Your task to perform on an android device: Open accessibility settings Image 0: 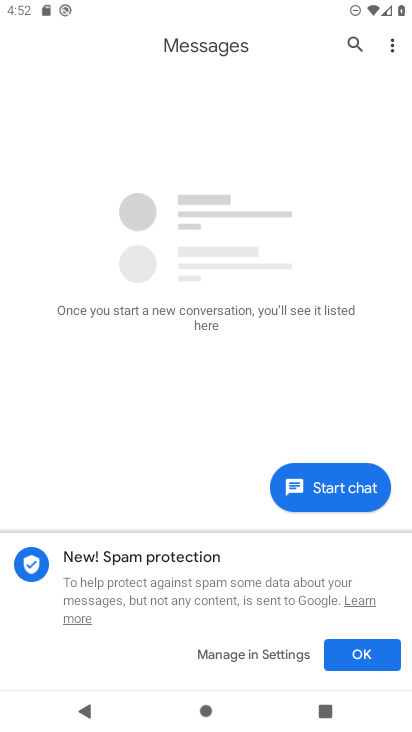
Step 0: press home button
Your task to perform on an android device: Open accessibility settings Image 1: 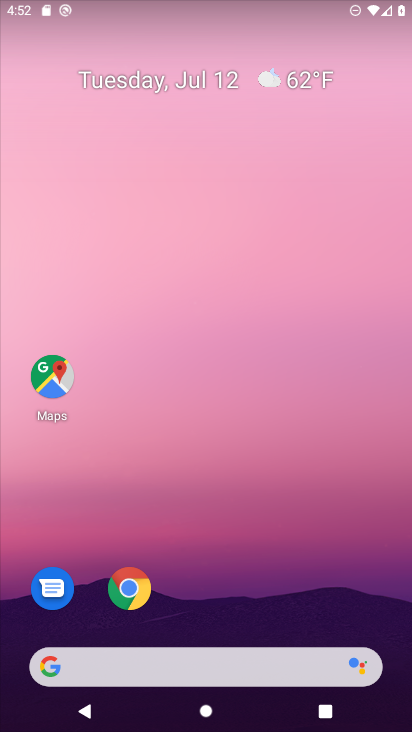
Step 1: drag from (224, 635) to (221, 87)
Your task to perform on an android device: Open accessibility settings Image 2: 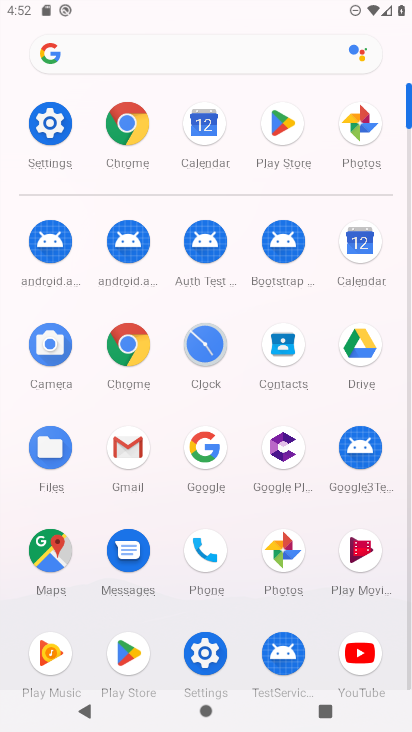
Step 2: click (218, 660)
Your task to perform on an android device: Open accessibility settings Image 3: 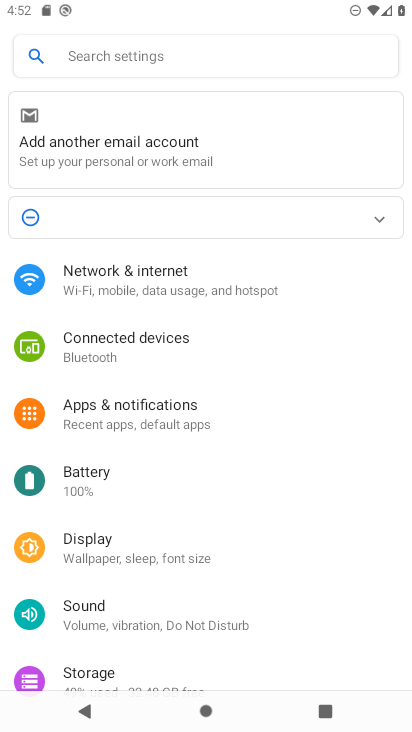
Step 3: drag from (155, 604) to (157, 261)
Your task to perform on an android device: Open accessibility settings Image 4: 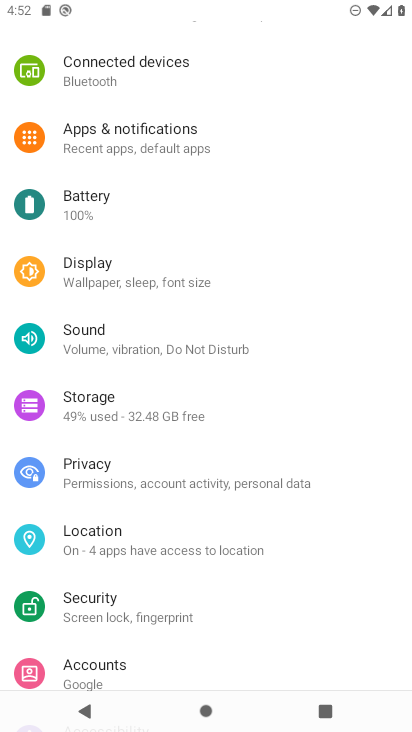
Step 4: drag from (120, 650) to (159, 381)
Your task to perform on an android device: Open accessibility settings Image 5: 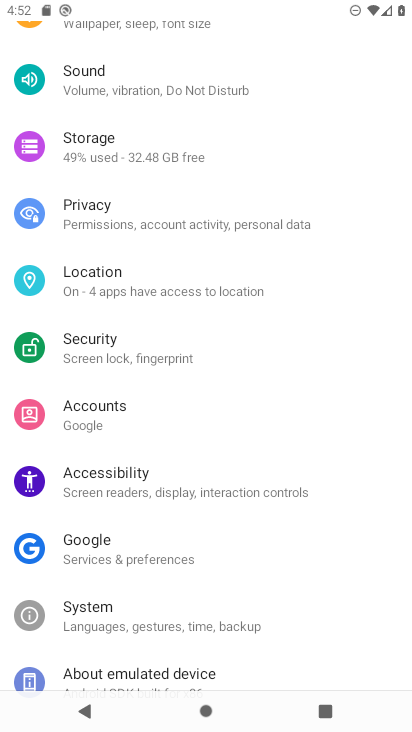
Step 5: click (137, 492)
Your task to perform on an android device: Open accessibility settings Image 6: 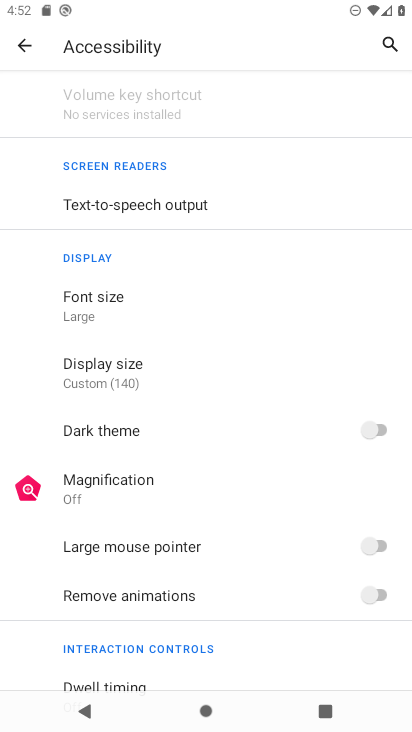
Step 6: task complete